Your task to perform on an android device: change the clock display to analog Image 0: 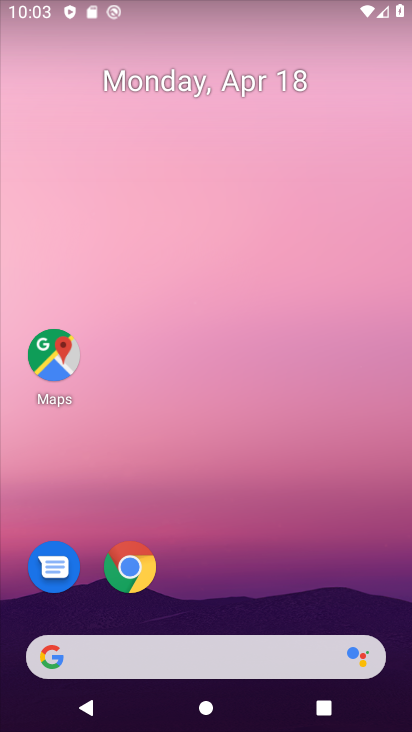
Step 0: drag from (247, 514) to (288, 103)
Your task to perform on an android device: change the clock display to analog Image 1: 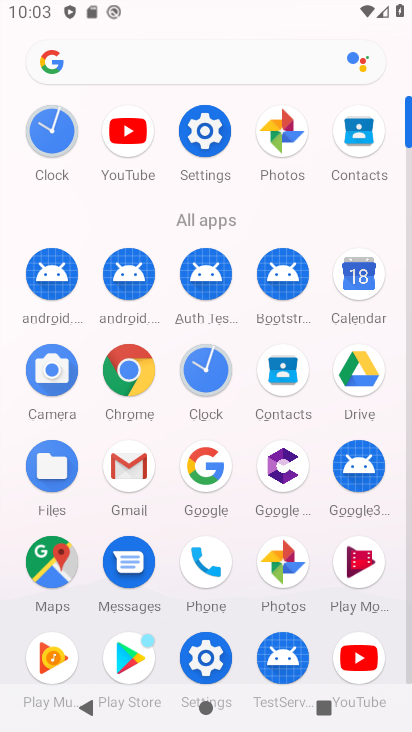
Step 1: click (206, 370)
Your task to perform on an android device: change the clock display to analog Image 2: 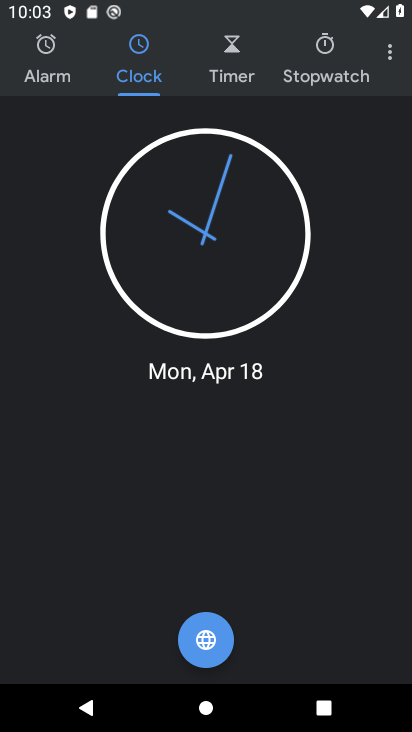
Step 2: click (387, 49)
Your task to perform on an android device: change the clock display to analog Image 3: 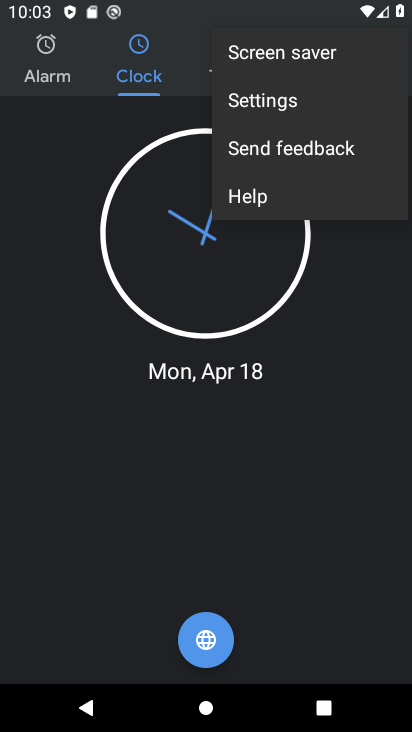
Step 3: click (279, 93)
Your task to perform on an android device: change the clock display to analog Image 4: 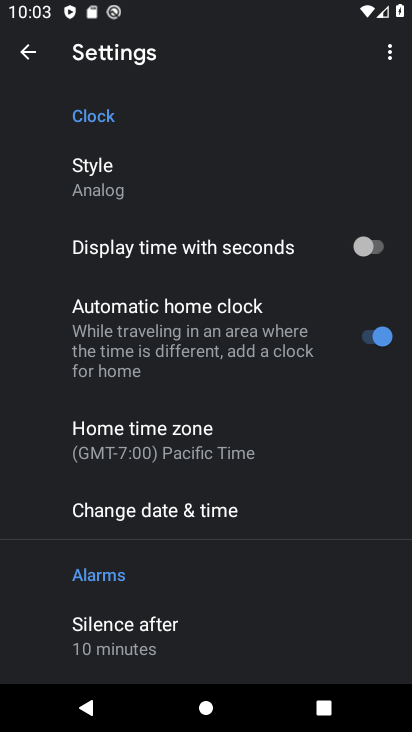
Step 4: click (100, 183)
Your task to perform on an android device: change the clock display to analog Image 5: 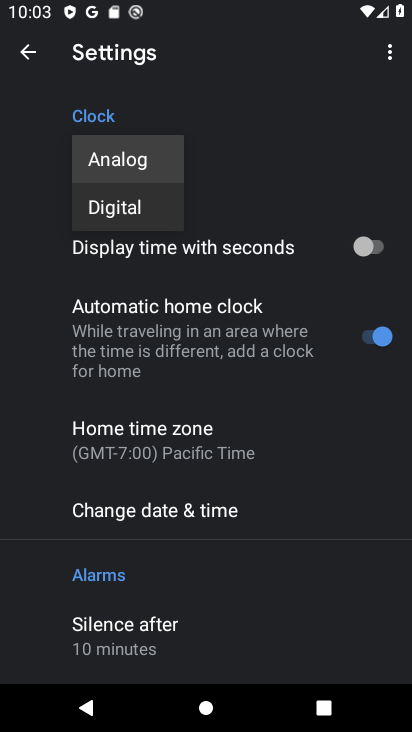
Step 5: task complete